Your task to perform on an android device: Check the weather Image 0: 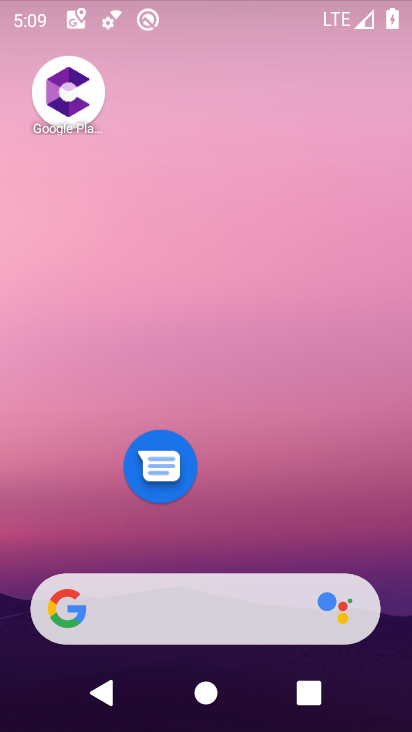
Step 0: drag from (180, 483) to (101, 79)
Your task to perform on an android device: Check the weather Image 1: 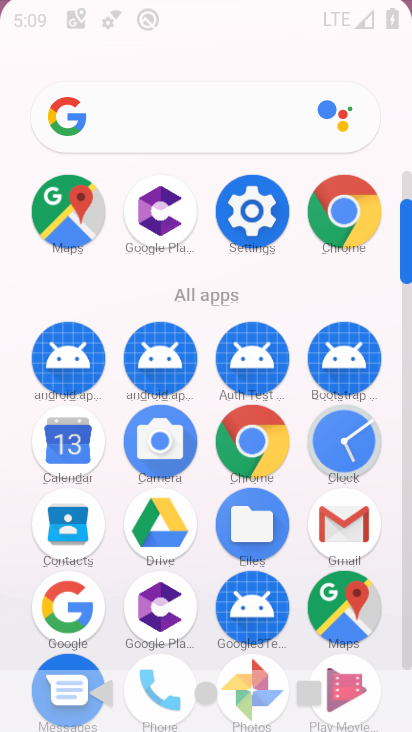
Step 1: drag from (304, 646) to (141, 13)
Your task to perform on an android device: Check the weather Image 2: 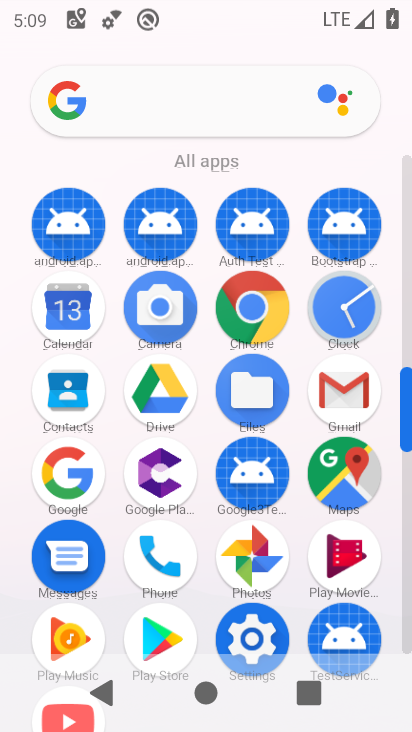
Step 2: press back button
Your task to perform on an android device: Check the weather Image 3: 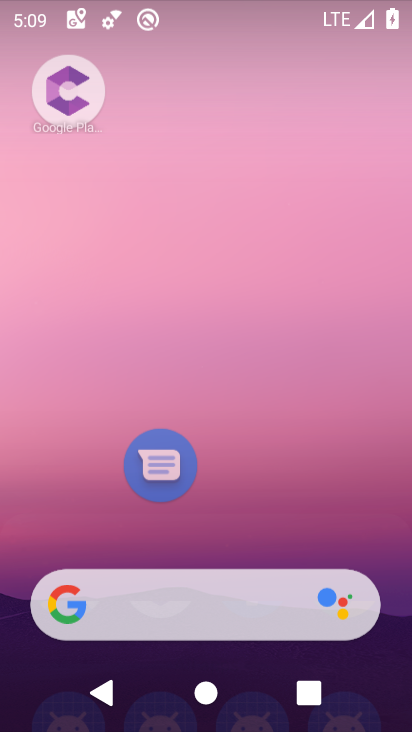
Step 3: press back button
Your task to perform on an android device: Check the weather Image 4: 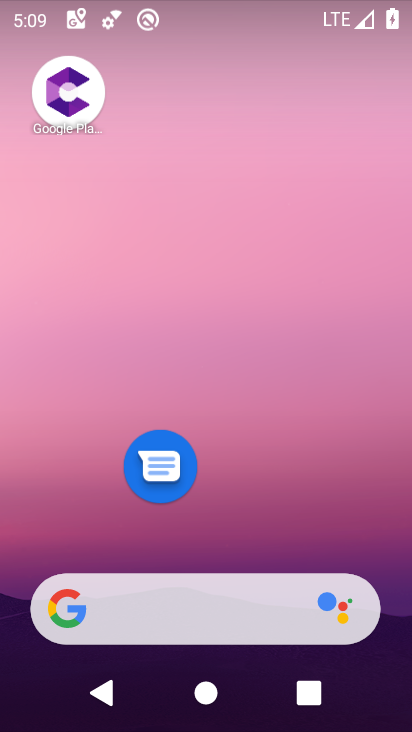
Step 4: drag from (15, 154) to (395, 382)
Your task to perform on an android device: Check the weather Image 5: 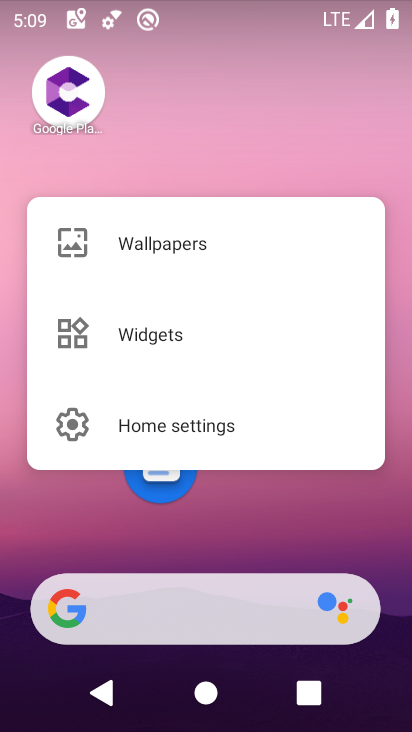
Step 5: click (181, 125)
Your task to perform on an android device: Check the weather Image 6: 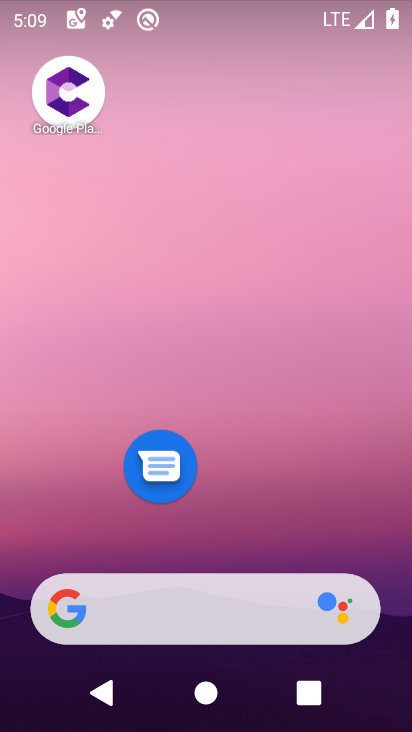
Step 6: click (183, 126)
Your task to perform on an android device: Check the weather Image 7: 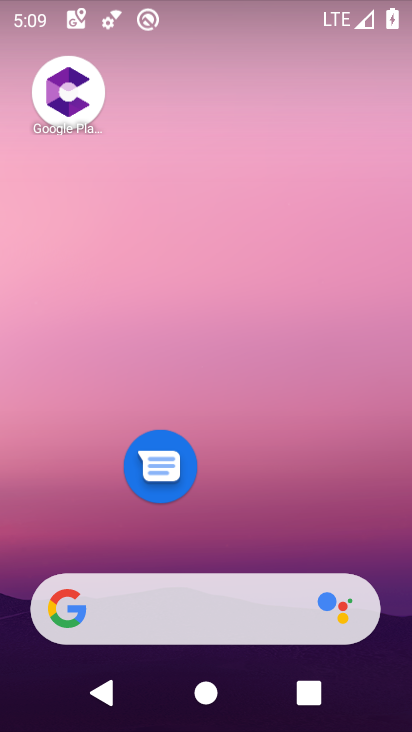
Step 7: drag from (4, 183) to (339, 413)
Your task to perform on an android device: Check the weather Image 8: 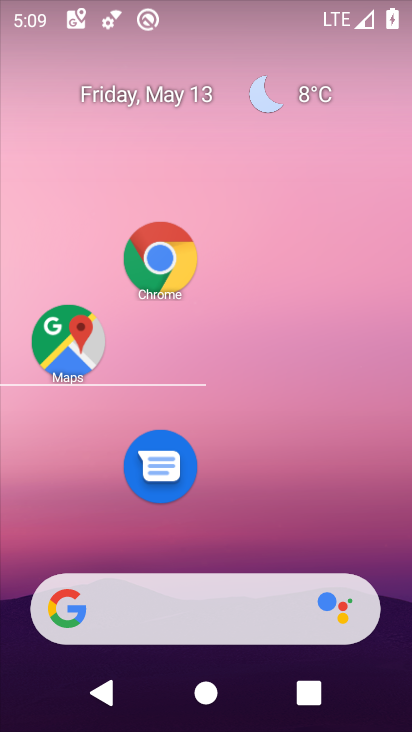
Step 8: drag from (7, 167) to (351, 478)
Your task to perform on an android device: Check the weather Image 9: 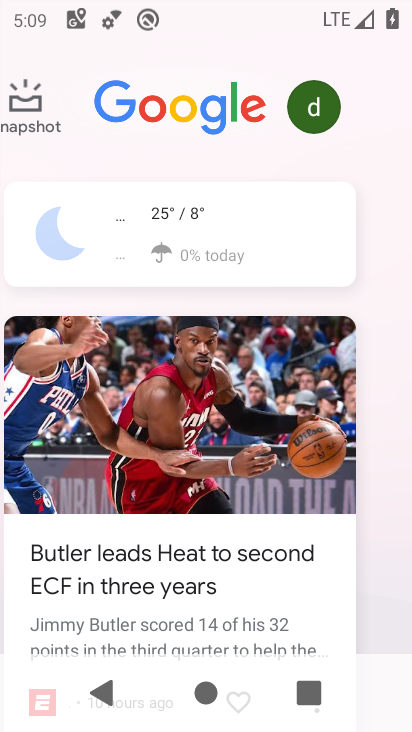
Step 9: drag from (34, 204) to (339, 393)
Your task to perform on an android device: Check the weather Image 10: 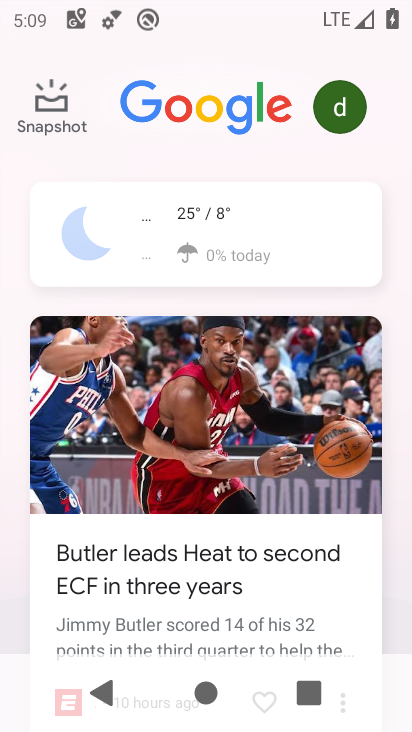
Step 10: click (179, 234)
Your task to perform on an android device: Check the weather Image 11: 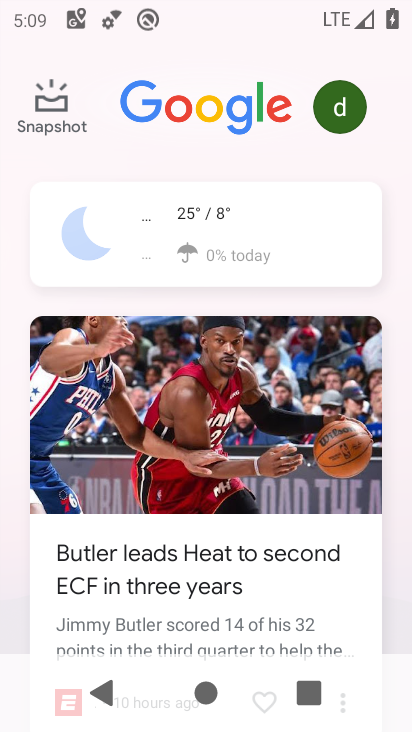
Step 11: click (182, 255)
Your task to perform on an android device: Check the weather Image 12: 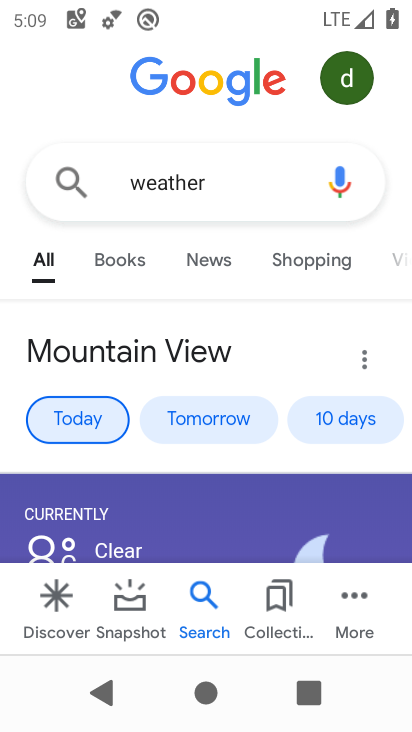
Step 12: click (169, 189)
Your task to perform on an android device: Check the weather Image 13: 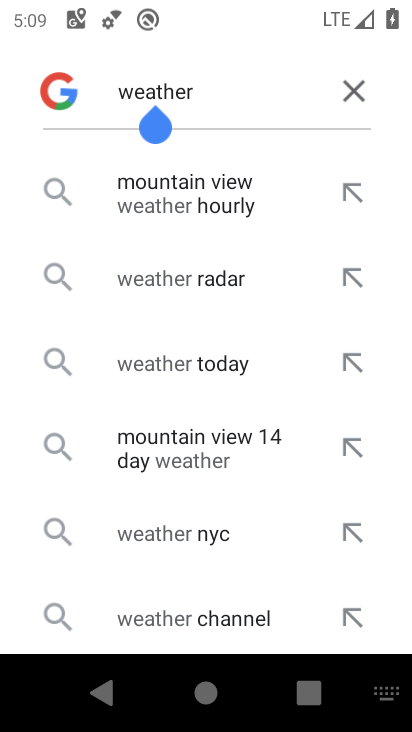
Step 13: click (201, 490)
Your task to perform on an android device: Check the weather Image 14: 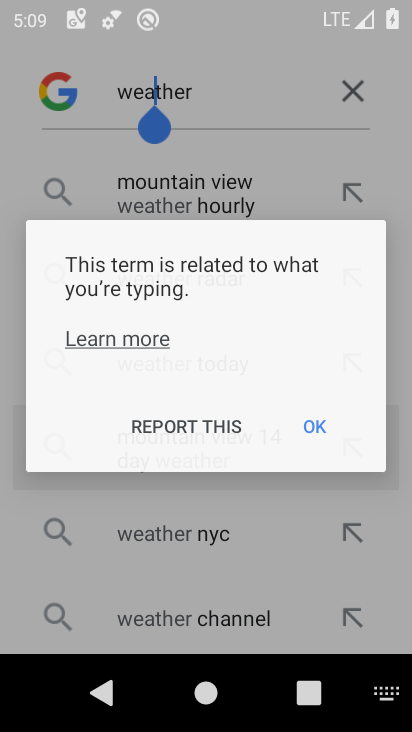
Step 14: click (204, 518)
Your task to perform on an android device: Check the weather Image 15: 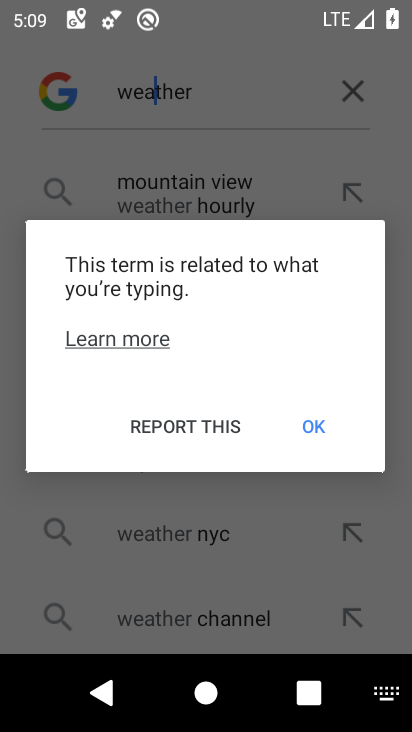
Step 15: click (303, 430)
Your task to perform on an android device: Check the weather Image 16: 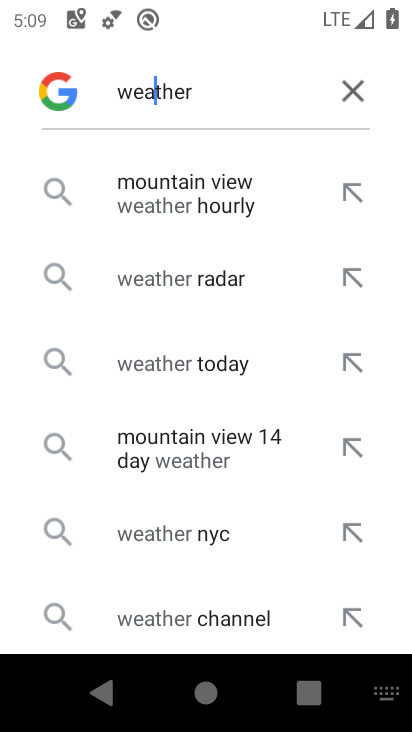
Step 16: click (360, 98)
Your task to perform on an android device: Check the weather Image 17: 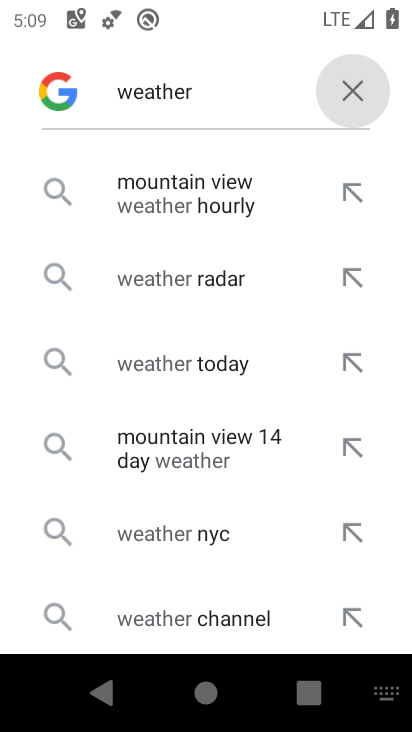
Step 17: click (360, 90)
Your task to perform on an android device: Check the weather Image 18: 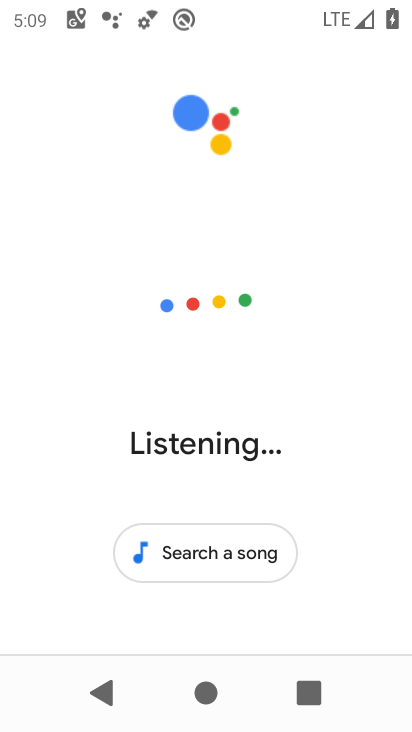
Step 18: click (367, 180)
Your task to perform on an android device: Check the weather Image 19: 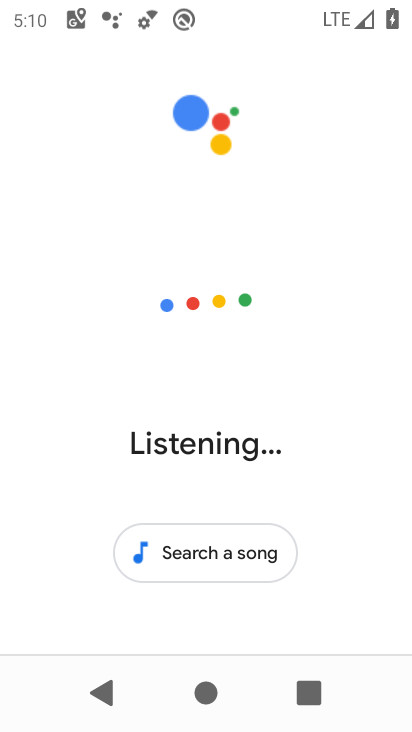
Step 19: task complete